Your task to perform on an android device: Open settings Image 0: 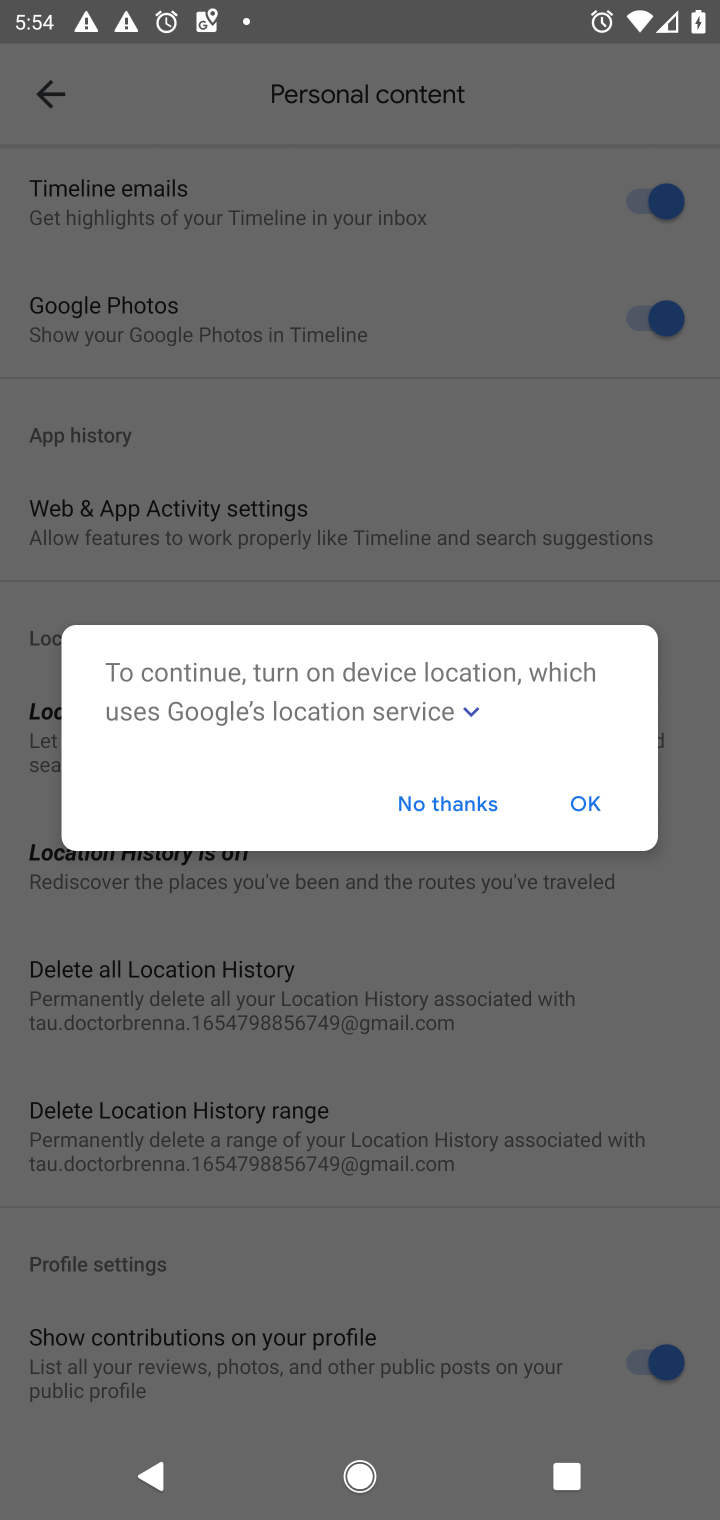
Step 0: press home button
Your task to perform on an android device: Open settings Image 1: 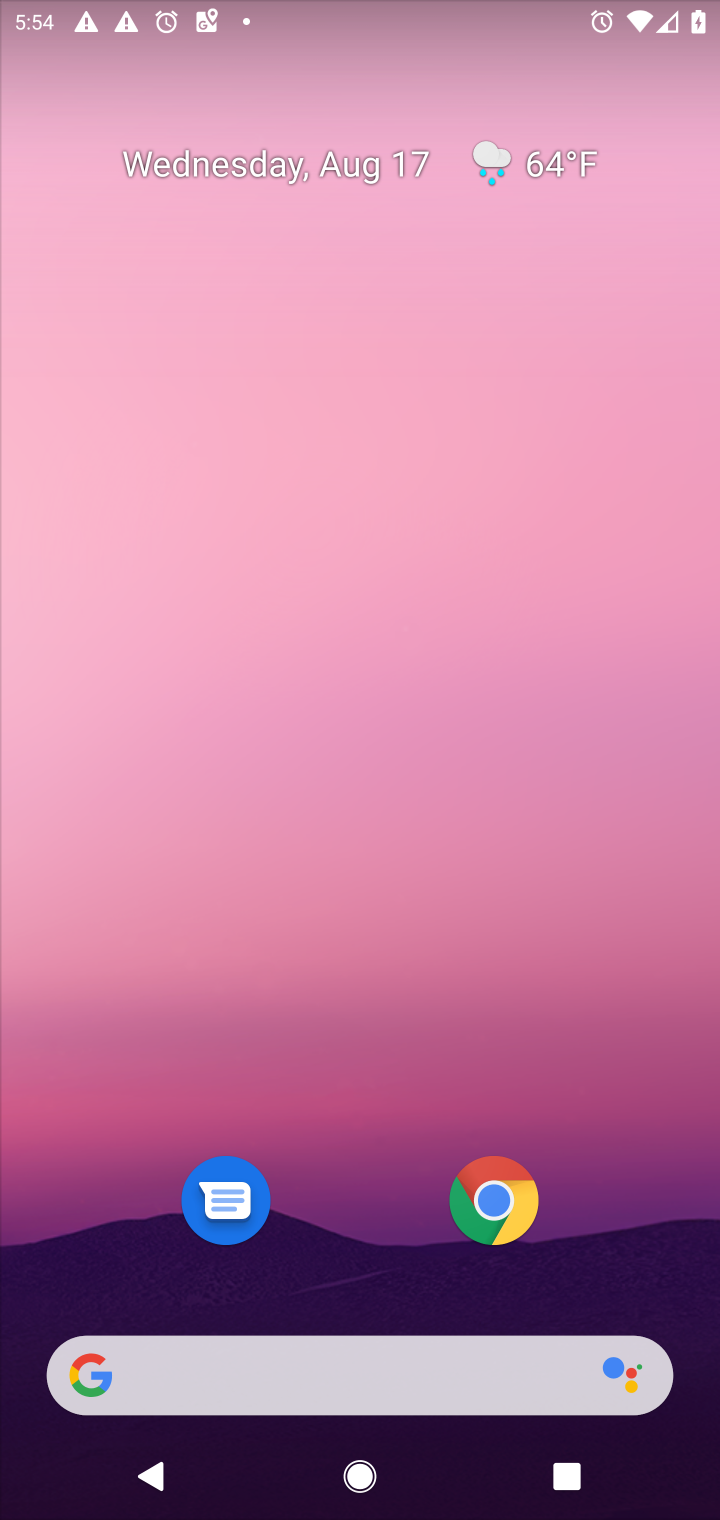
Step 1: drag from (378, 1307) to (398, 53)
Your task to perform on an android device: Open settings Image 2: 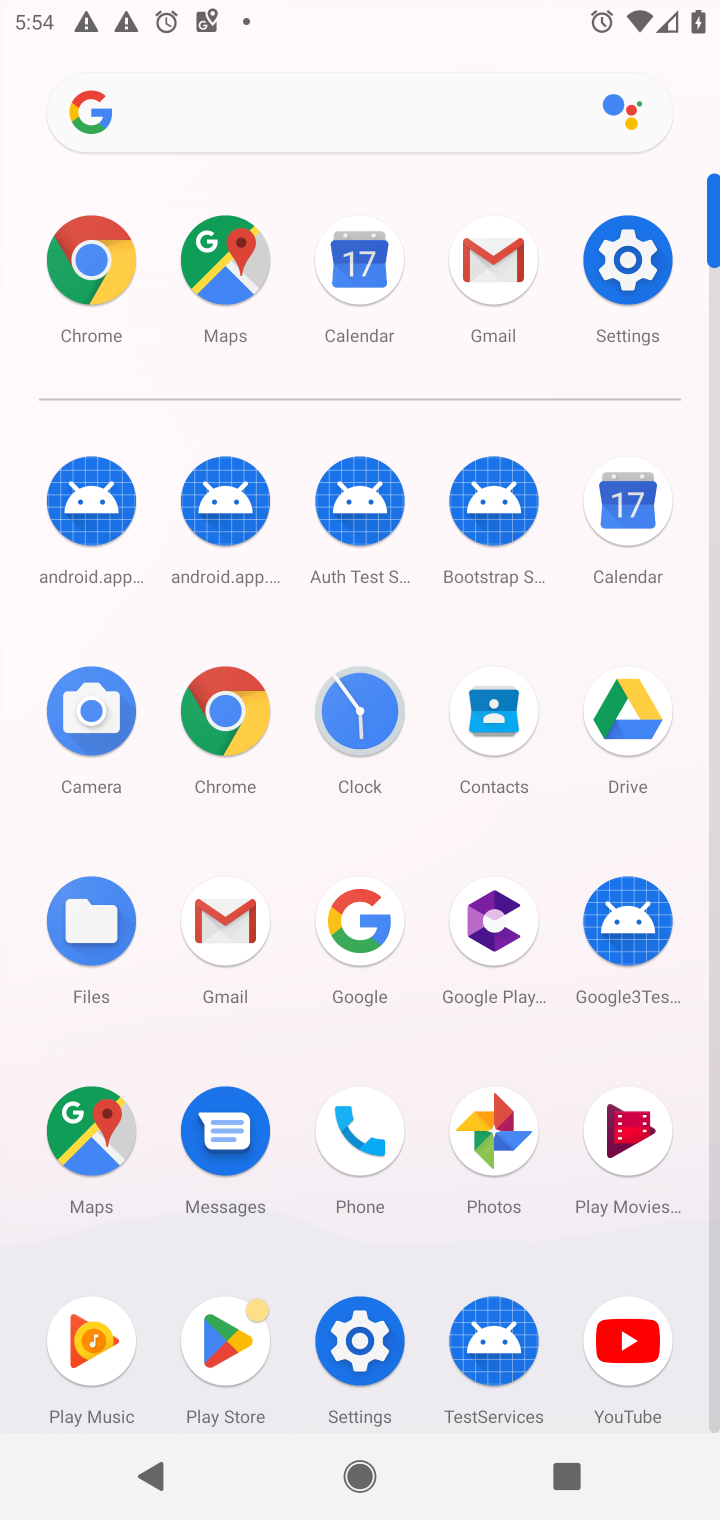
Step 2: click (619, 264)
Your task to perform on an android device: Open settings Image 3: 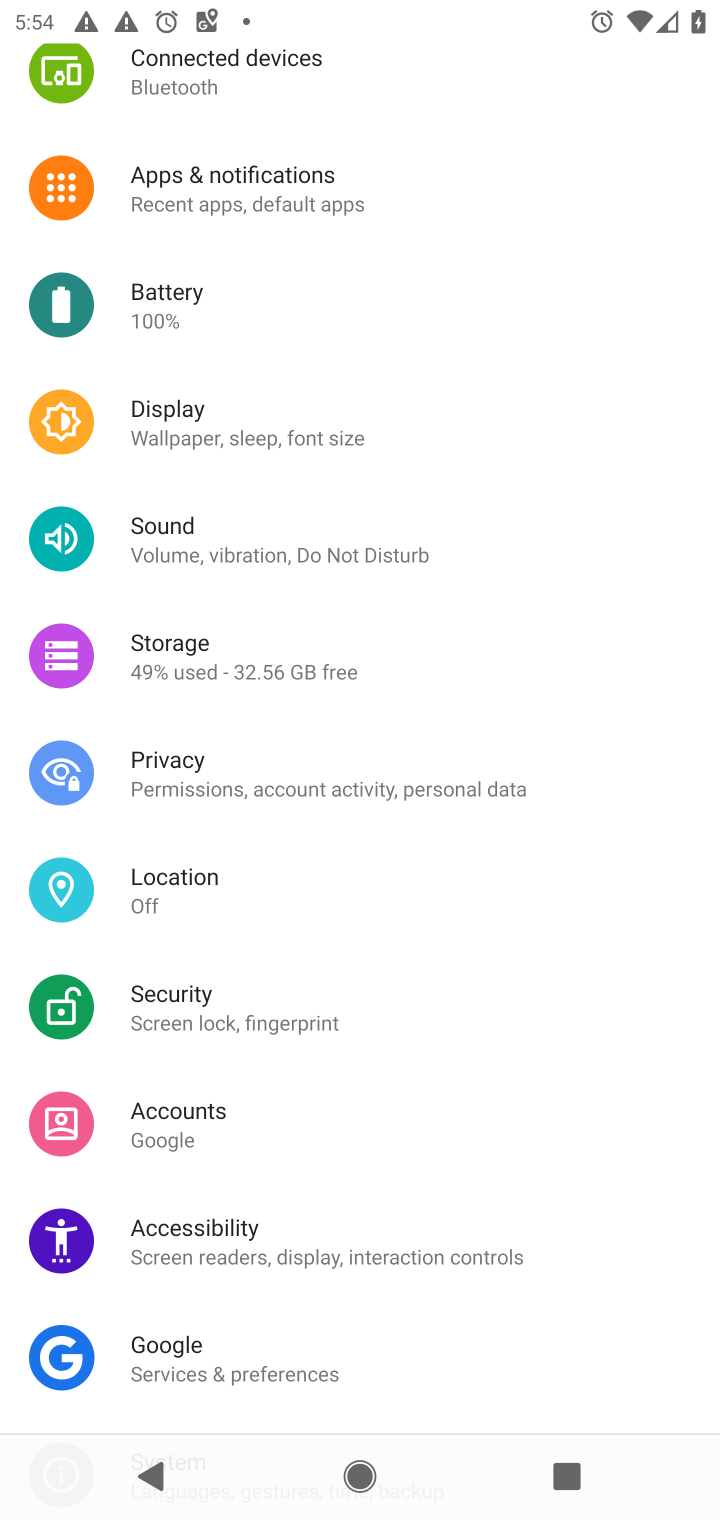
Step 3: task complete